Your task to perform on an android device: open app "Mercado Libre" (install if not already installed) Image 0: 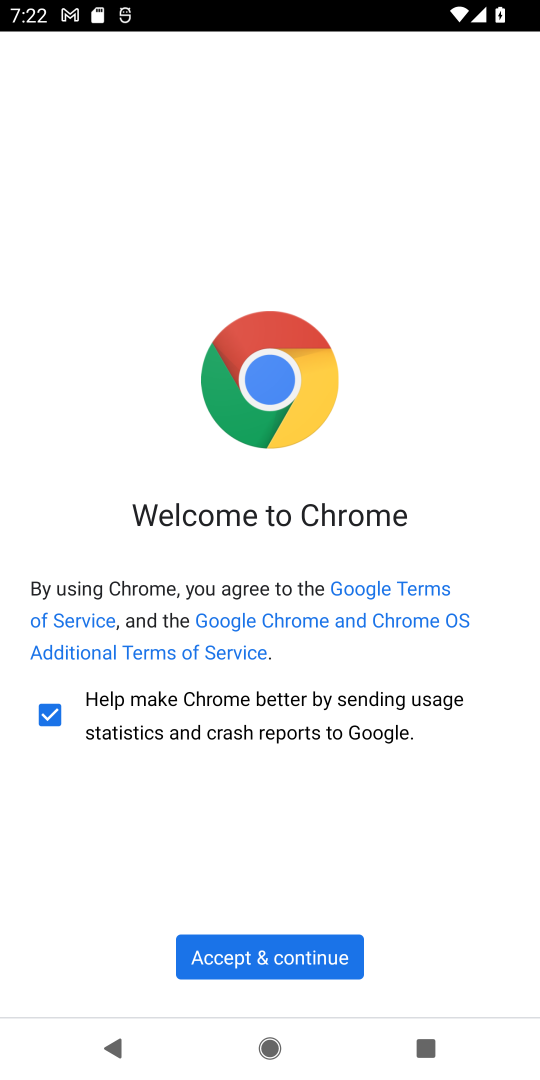
Step 0: press home button
Your task to perform on an android device: open app "Mercado Libre" (install if not already installed) Image 1: 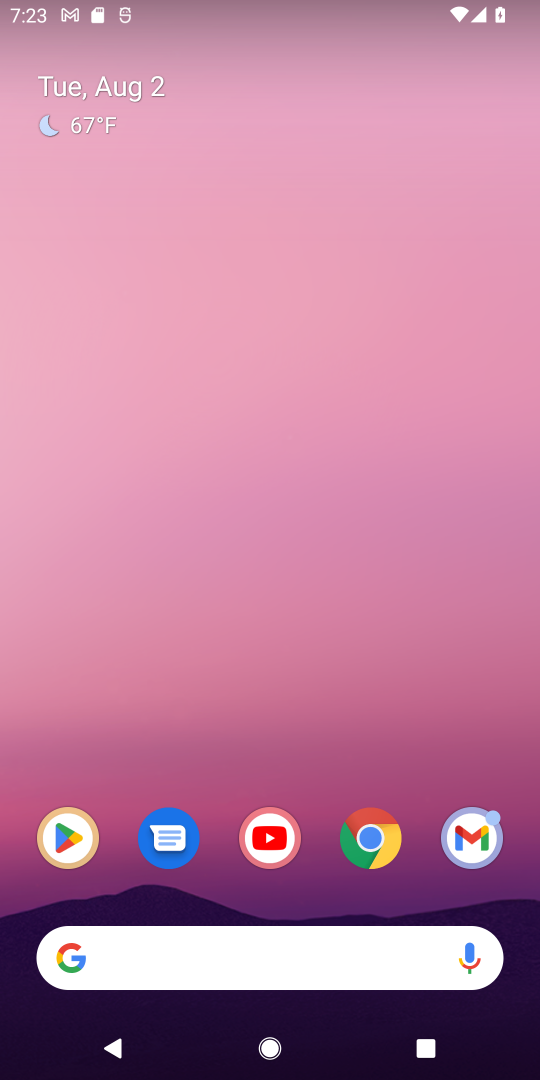
Step 1: click (68, 852)
Your task to perform on an android device: open app "Mercado Libre" (install if not already installed) Image 2: 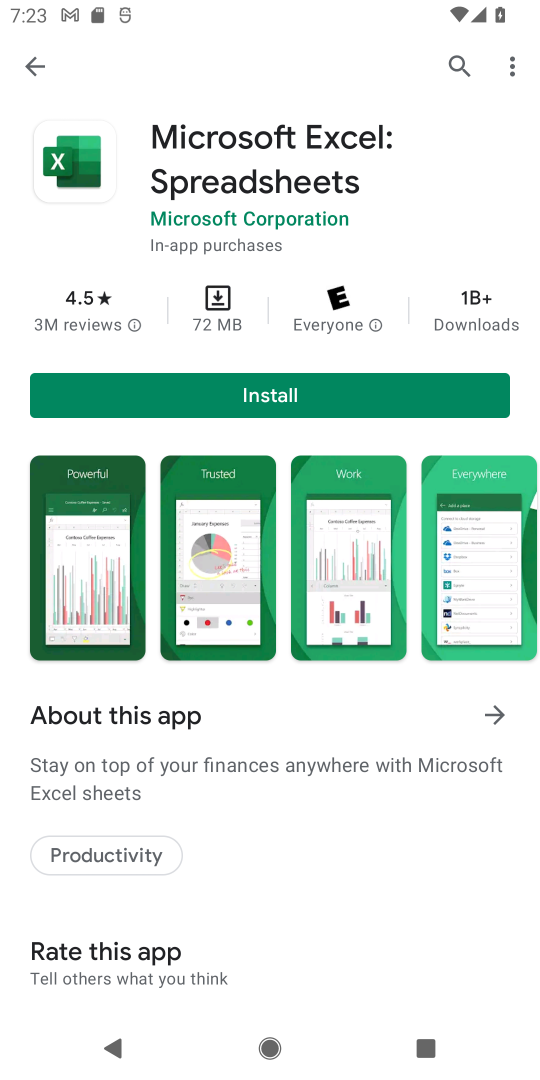
Step 2: click (465, 67)
Your task to perform on an android device: open app "Mercado Libre" (install if not already installed) Image 3: 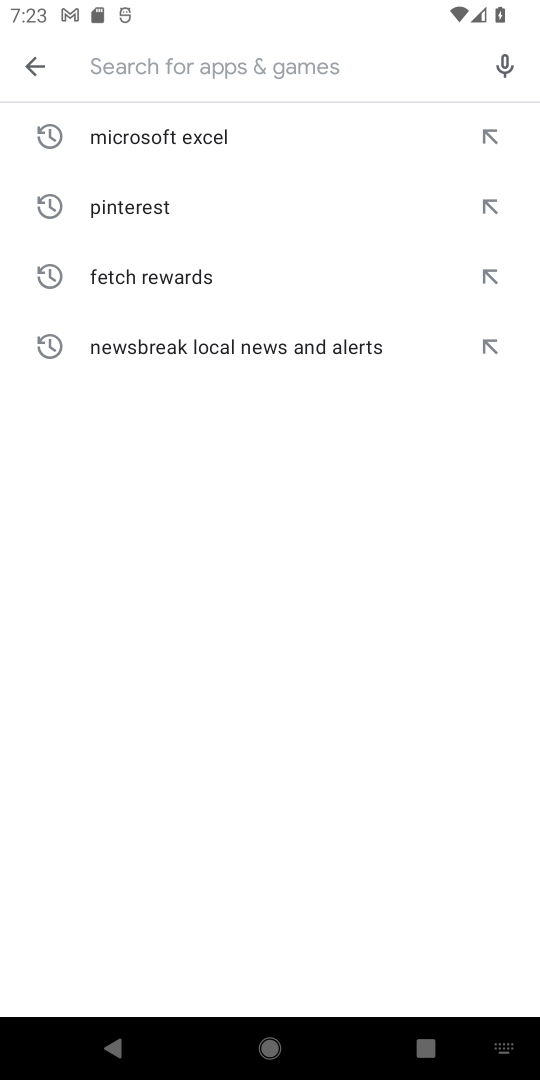
Step 3: type "mercado libre"
Your task to perform on an android device: open app "Mercado Libre" (install if not already installed) Image 4: 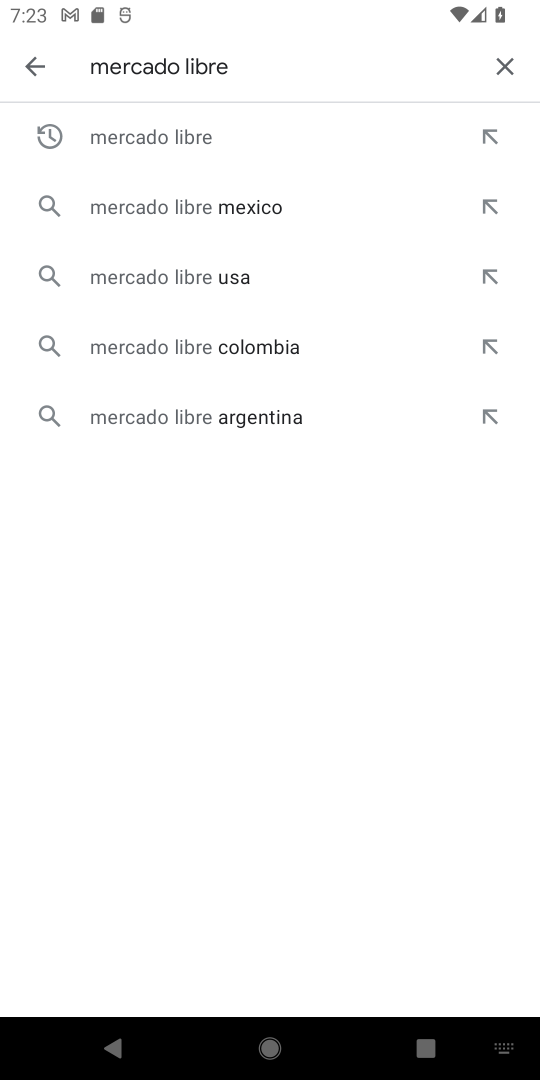
Step 4: click (335, 126)
Your task to perform on an android device: open app "Mercado Libre" (install if not already installed) Image 5: 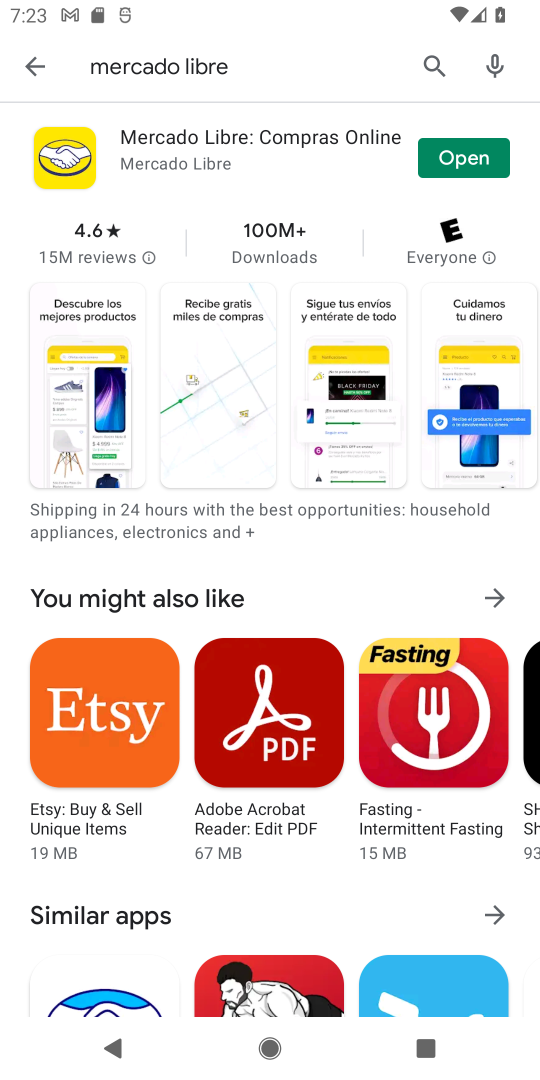
Step 5: click (252, 150)
Your task to perform on an android device: open app "Mercado Libre" (install if not already installed) Image 6: 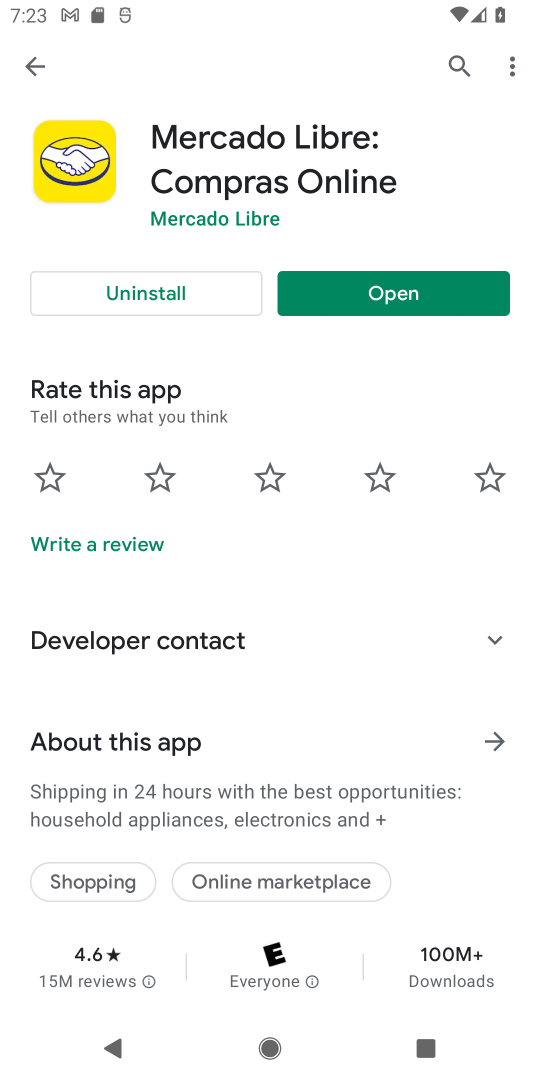
Step 6: click (395, 298)
Your task to perform on an android device: open app "Mercado Libre" (install if not already installed) Image 7: 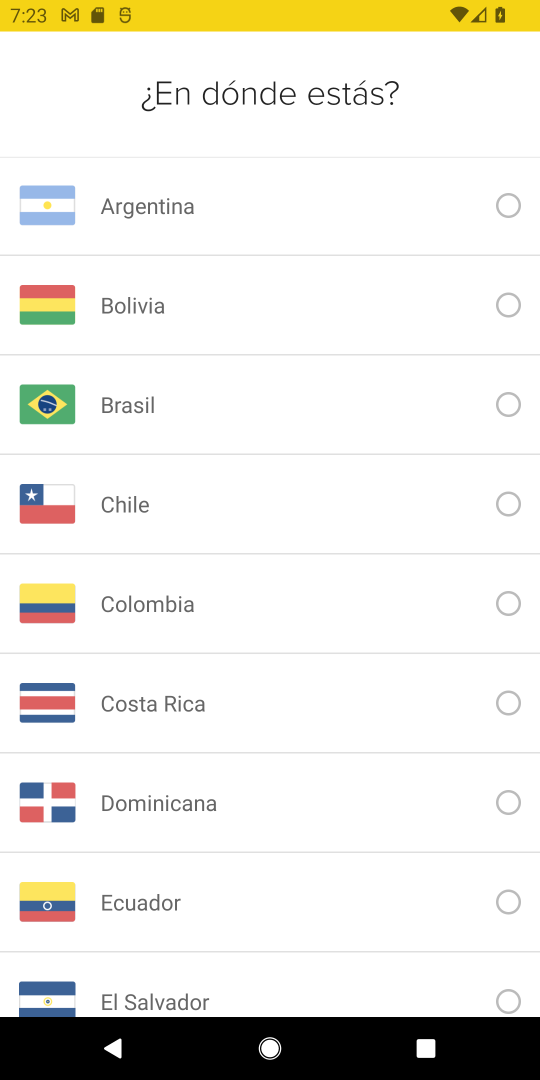
Step 7: task complete